Your task to perform on an android device: Open network settings Image 0: 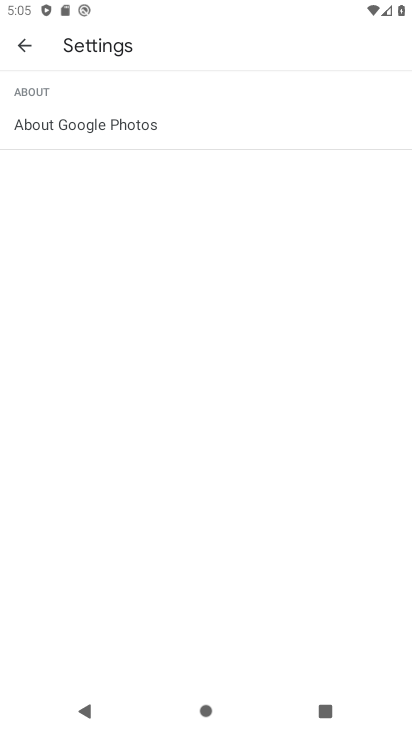
Step 0: press home button
Your task to perform on an android device: Open network settings Image 1: 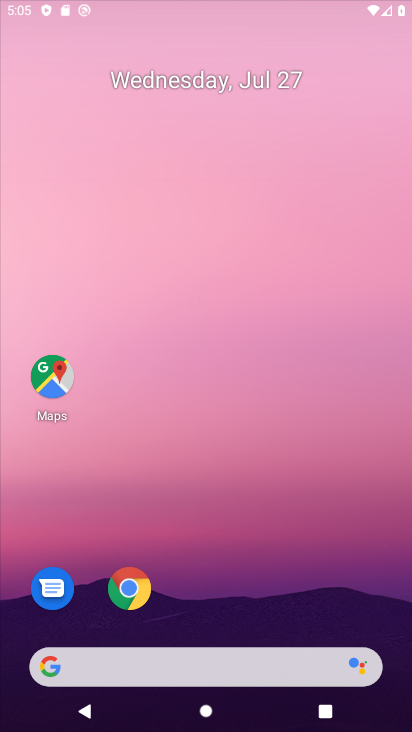
Step 1: drag from (197, 689) to (282, 1)
Your task to perform on an android device: Open network settings Image 2: 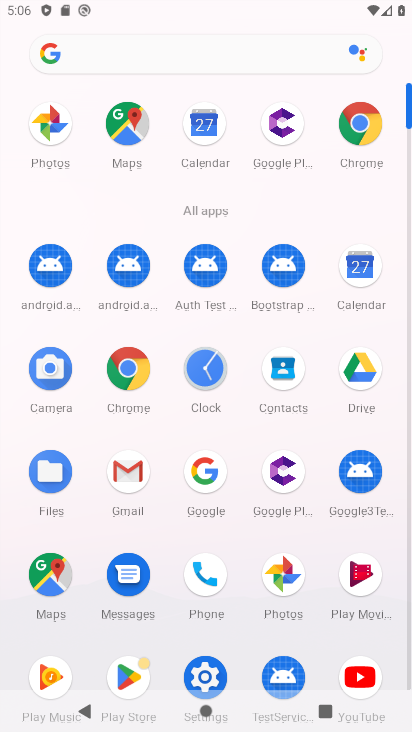
Step 2: click (200, 40)
Your task to perform on an android device: Open network settings Image 3: 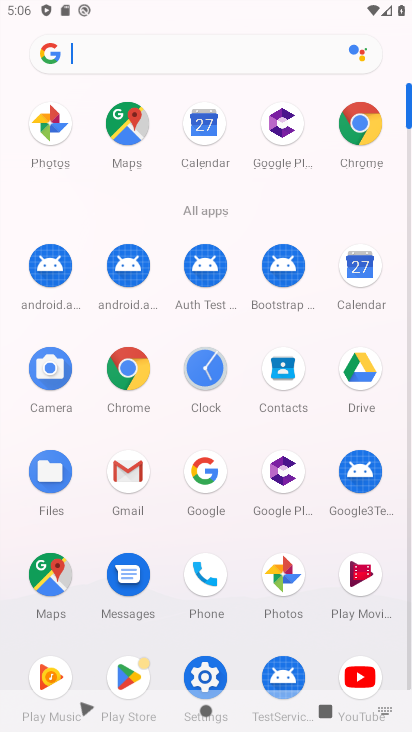
Step 3: click (200, 669)
Your task to perform on an android device: Open network settings Image 4: 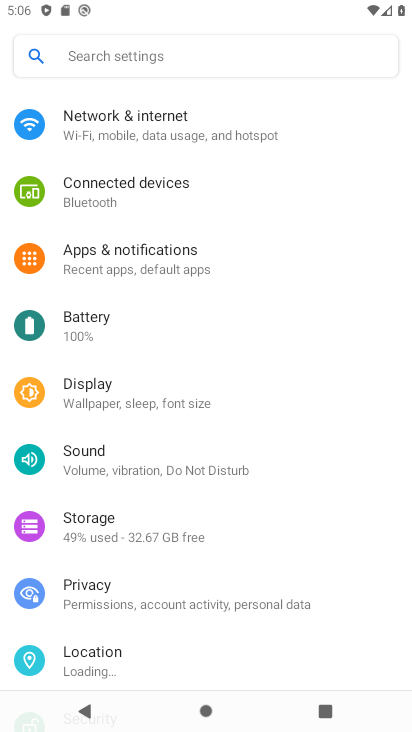
Step 4: click (200, 669)
Your task to perform on an android device: Open network settings Image 5: 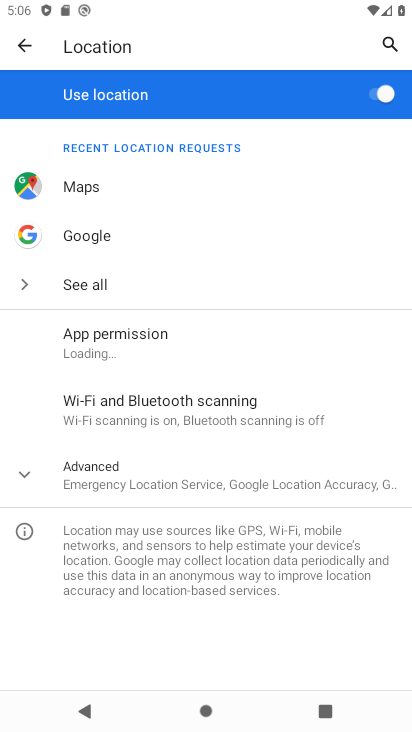
Step 5: press back button
Your task to perform on an android device: Open network settings Image 6: 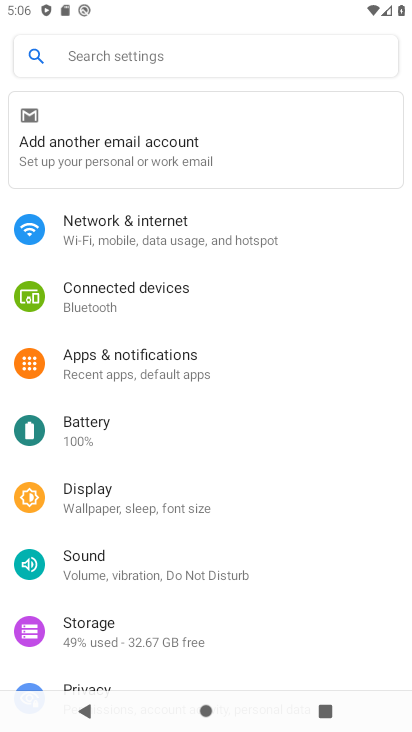
Step 6: click (143, 226)
Your task to perform on an android device: Open network settings Image 7: 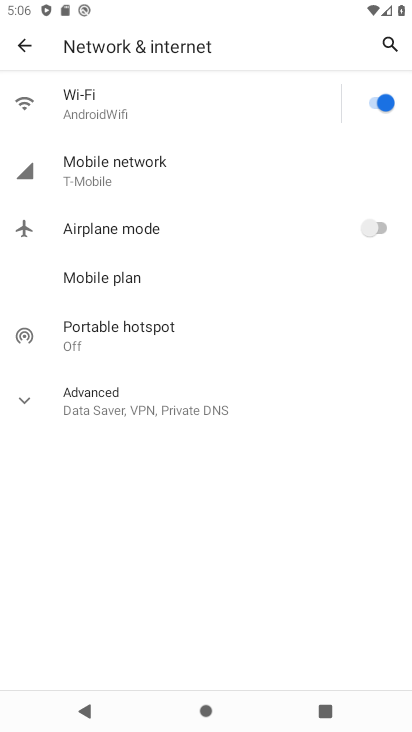
Step 7: task complete